Your task to perform on an android device: change the clock display to digital Image 0: 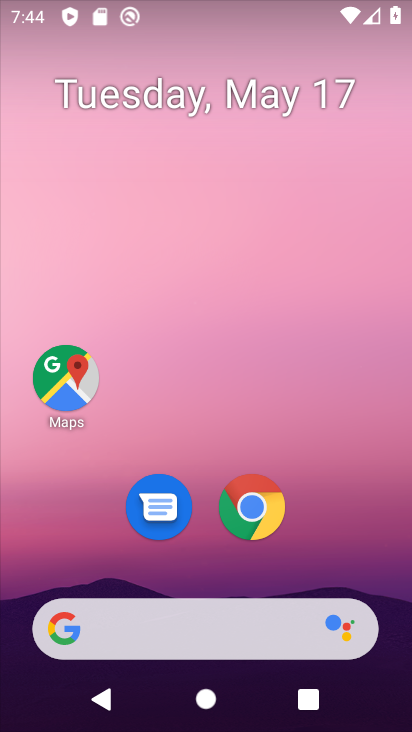
Step 0: drag from (300, 710) to (128, 88)
Your task to perform on an android device: change the clock display to digital Image 1: 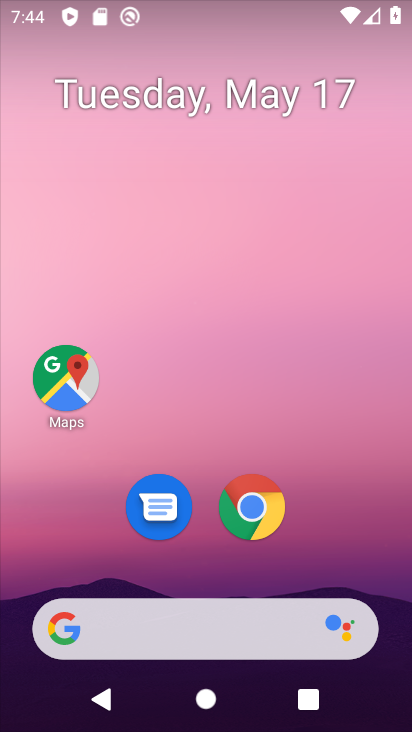
Step 1: drag from (273, 670) to (208, 0)
Your task to perform on an android device: change the clock display to digital Image 2: 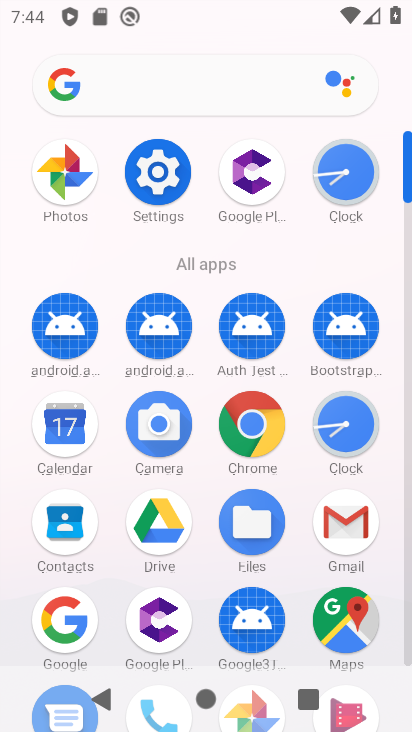
Step 2: click (349, 425)
Your task to perform on an android device: change the clock display to digital Image 3: 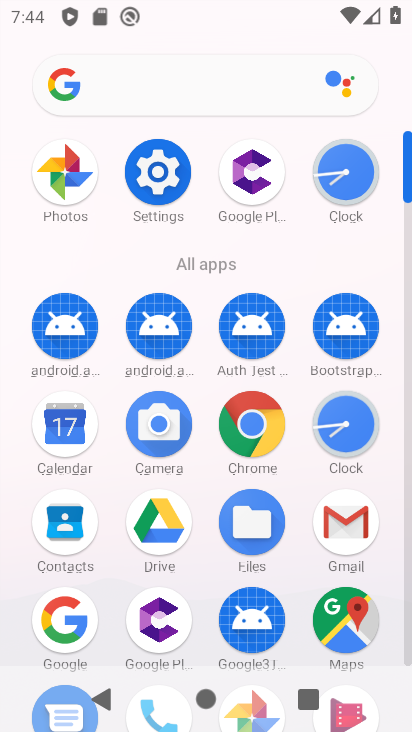
Step 3: click (349, 425)
Your task to perform on an android device: change the clock display to digital Image 4: 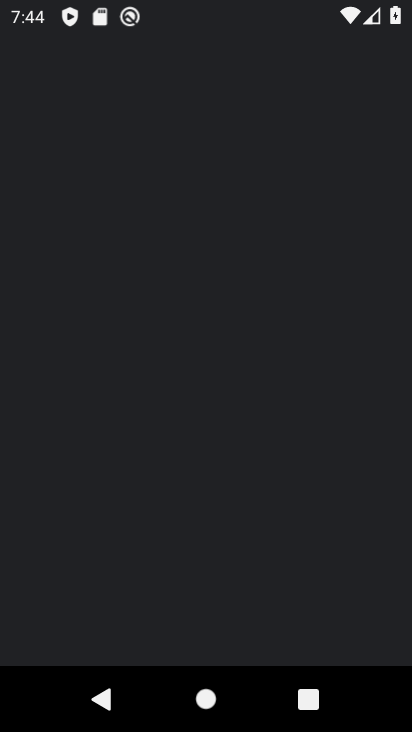
Step 4: click (347, 421)
Your task to perform on an android device: change the clock display to digital Image 5: 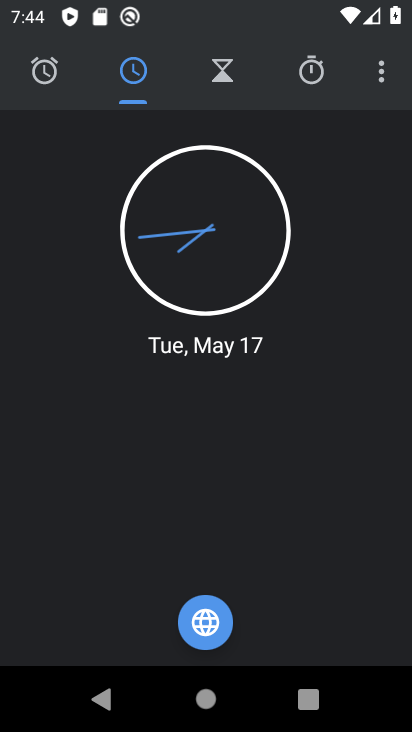
Step 5: click (381, 76)
Your task to perform on an android device: change the clock display to digital Image 6: 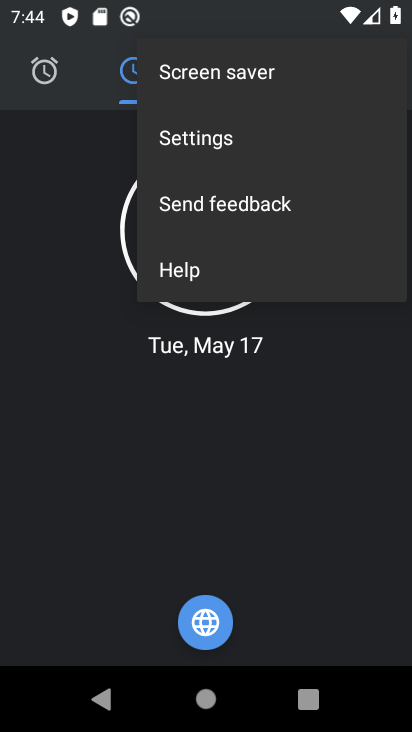
Step 6: click (214, 136)
Your task to perform on an android device: change the clock display to digital Image 7: 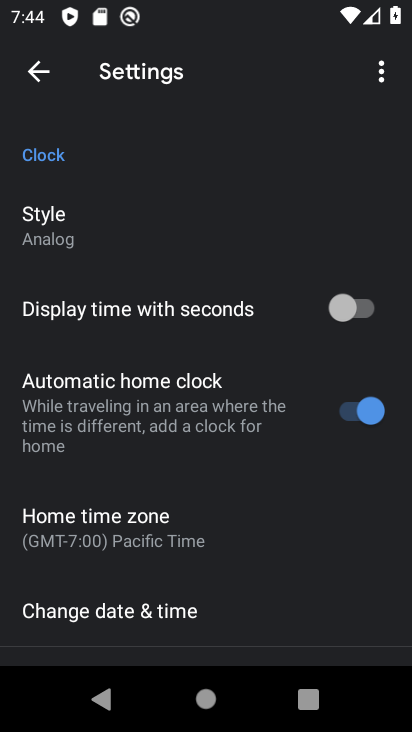
Step 7: click (33, 83)
Your task to perform on an android device: change the clock display to digital Image 8: 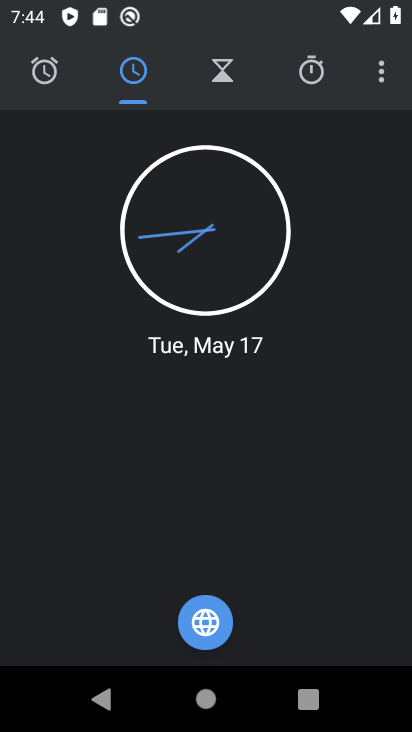
Step 8: click (376, 74)
Your task to perform on an android device: change the clock display to digital Image 9: 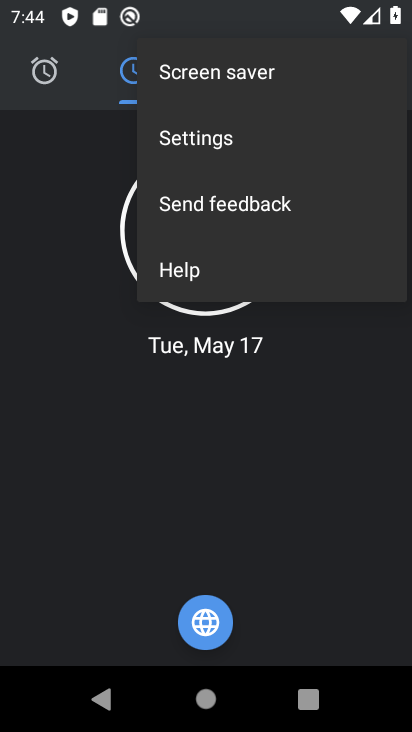
Step 9: click (211, 141)
Your task to perform on an android device: change the clock display to digital Image 10: 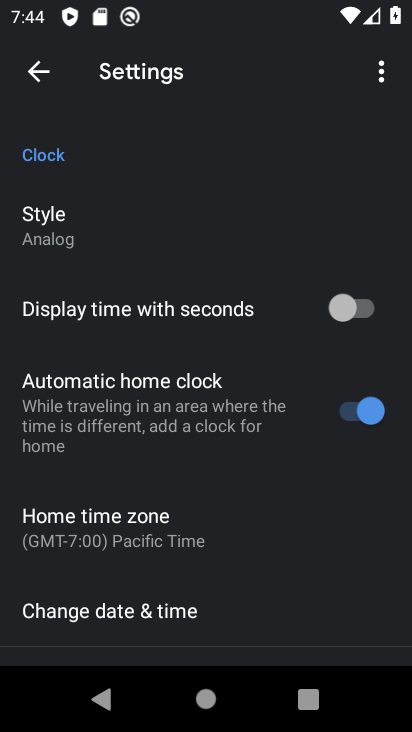
Step 10: click (111, 220)
Your task to perform on an android device: change the clock display to digital Image 11: 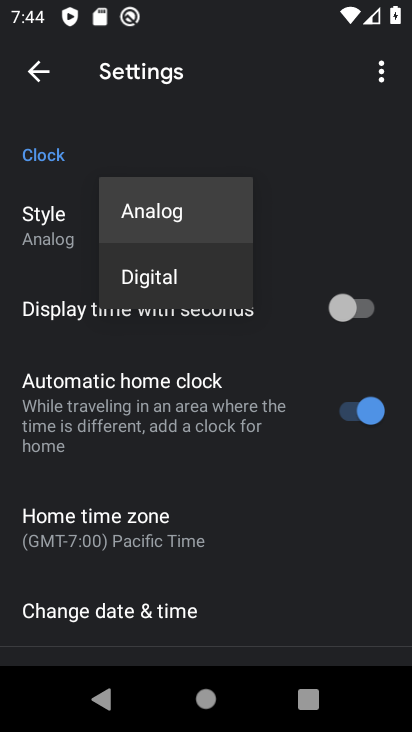
Step 11: click (156, 276)
Your task to perform on an android device: change the clock display to digital Image 12: 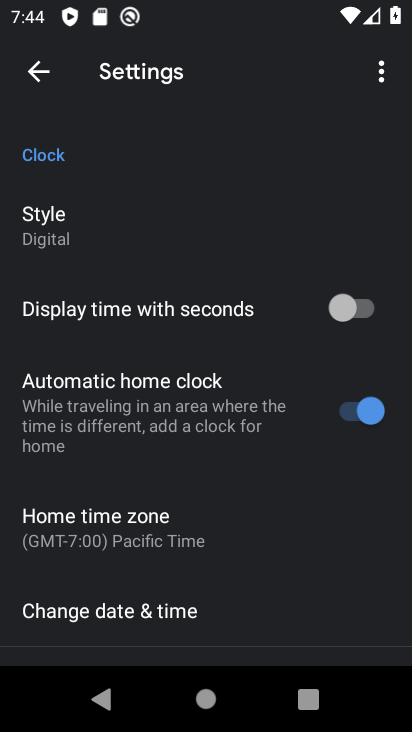
Step 12: task complete